Your task to perform on an android device: see sites visited before in the chrome app Image 0: 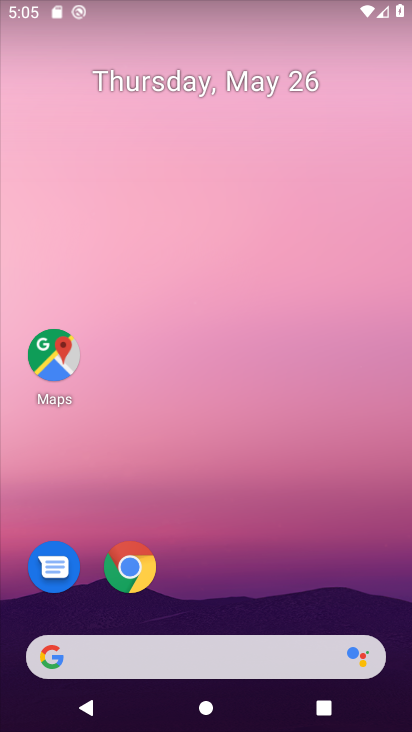
Step 0: drag from (274, 587) to (226, 153)
Your task to perform on an android device: see sites visited before in the chrome app Image 1: 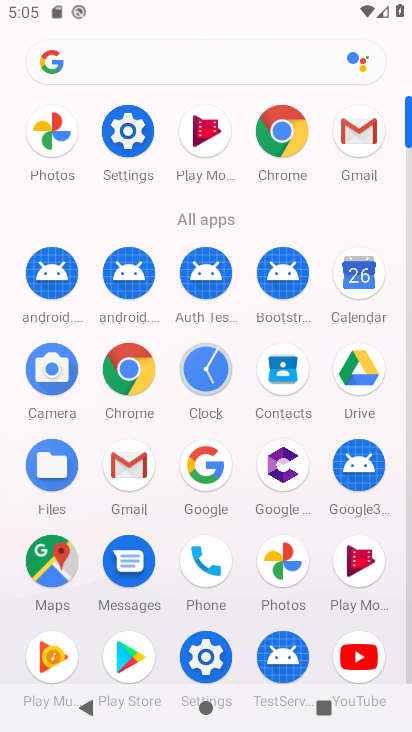
Step 1: click (299, 130)
Your task to perform on an android device: see sites visited before in the chrome app Image 2: 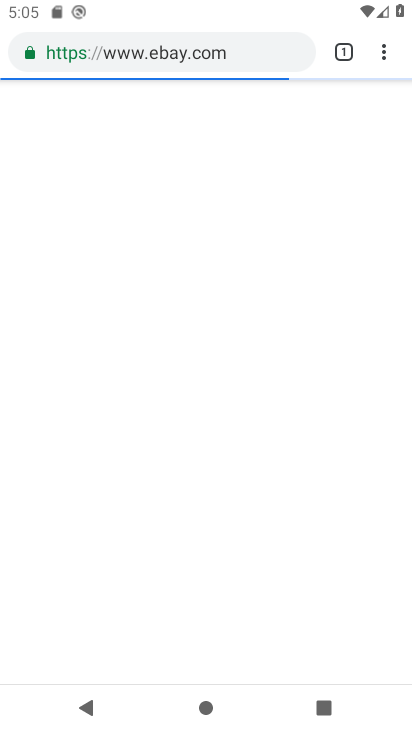
Step 2: click (385, 55)
Your task to perform on an android device: see sites visited before in the chrome app Image 3: 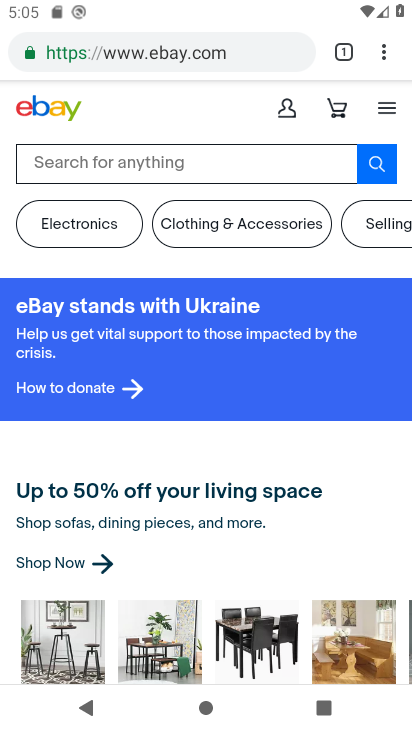
Step 3: task complete